Your task to perform on an android device: Go to privacy settings Image 0: 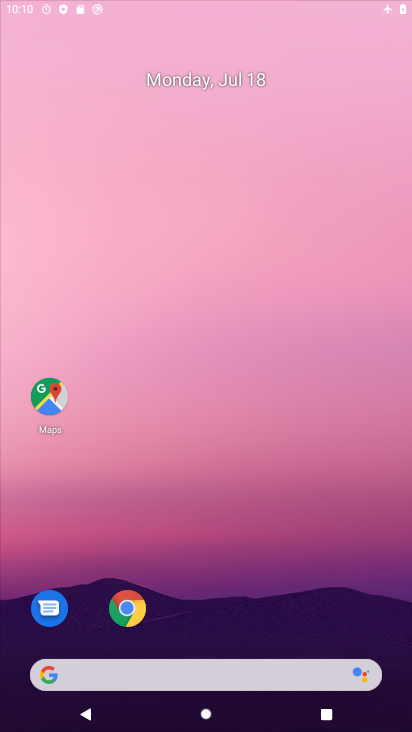
Step 0: click (239, 243)
Your task to perform on an android device: Go to privacy settings Image 1: 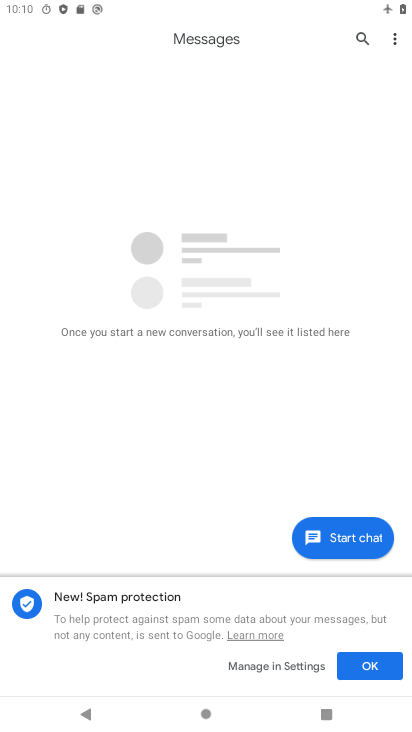
Step 1: press back button
Your task to perform on an android device: Go to privacy settings Image 2: 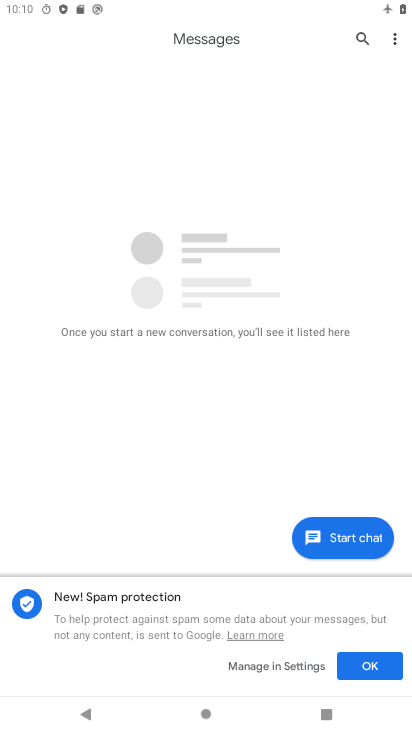
Step 2: press back button
Your task to perform on an android device: Go to privacy settings Image 3: 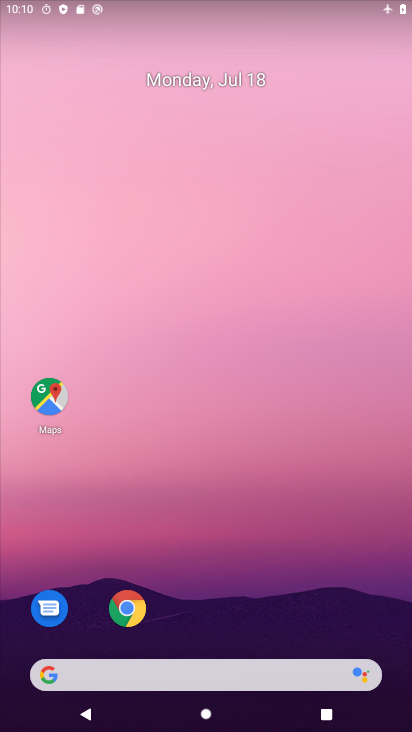
Step 3: drag from (229, 548) to (202, 165)
Your task to perform on an android device: Go to privacy settings Image 4: 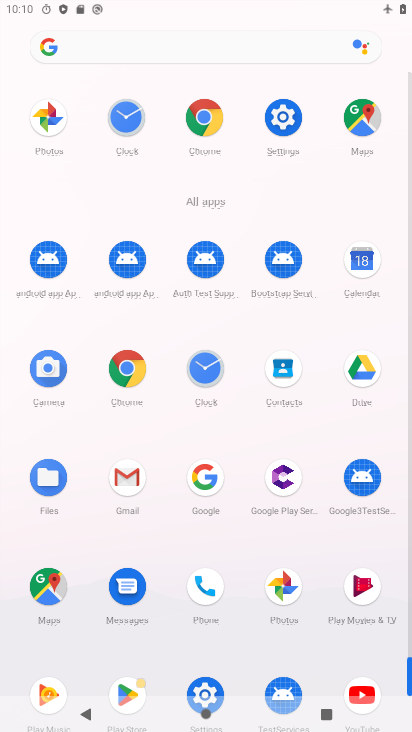
Step 4: click (289, 104)
Your task to perform on an android device: Go to privacy settings Image 5: 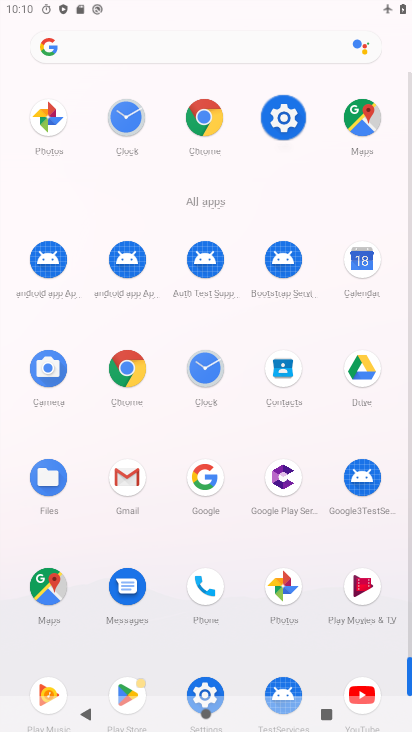
Step 5: click (286, 115)
Your task to perform on an android device: Go to privacy settings Image 6: 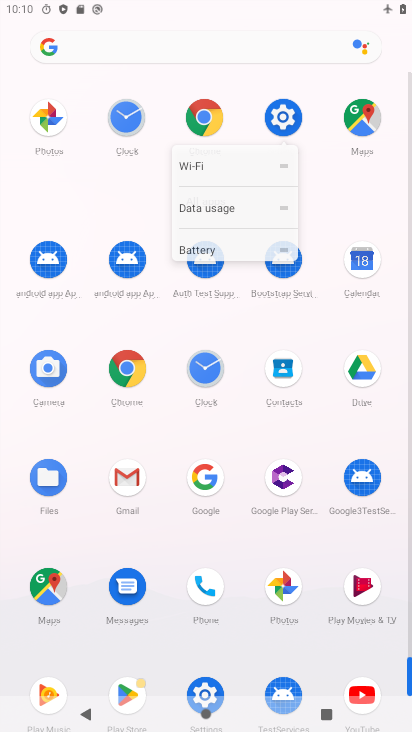
Step 6: click (291, 119)
Your task to perform on an android device: Go to privacy settings Image 7: 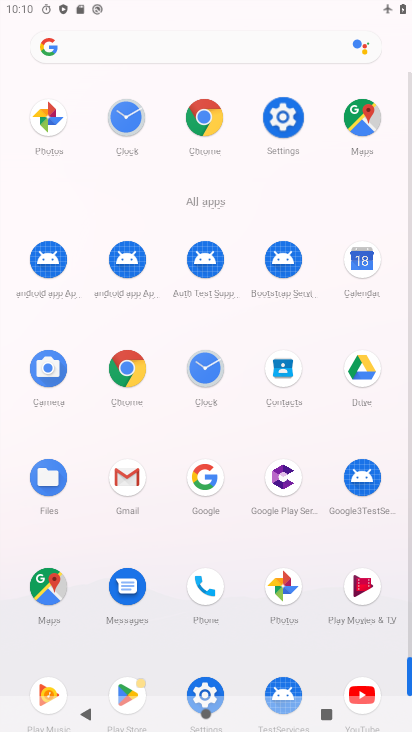
Step 7: click (291, 119)
Your task to perform on an android device: Go to privacy settings Image 8: 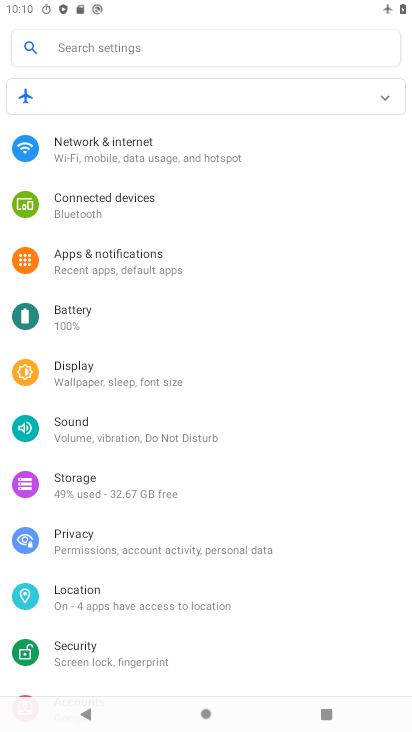
Step 8: click (72, 538)
Your task to perform on an android device: Go to privacy settings Image 9: 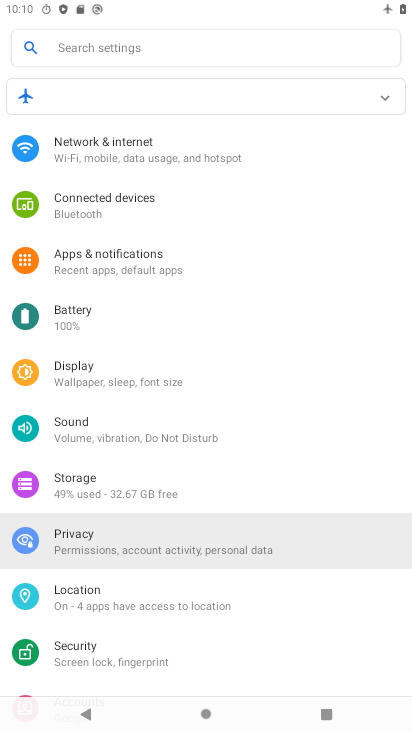
Step 9: click (77, 538)
Your task to perform on an android device: Go to privacy settings Image 10: 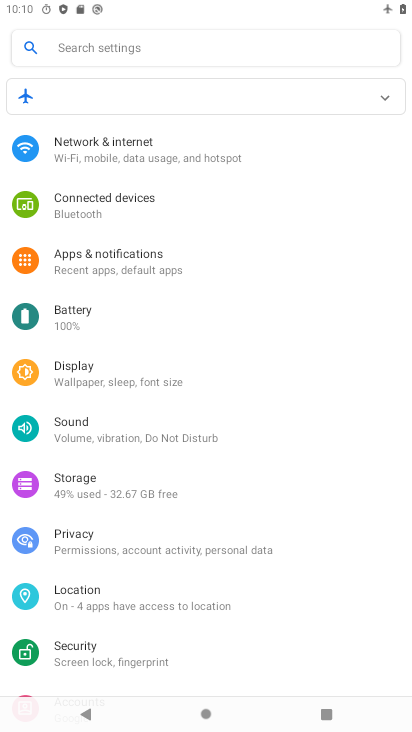
Step 10: click (78, 540)
Your task to perform on an android device: Go to privacy settings Image 11: 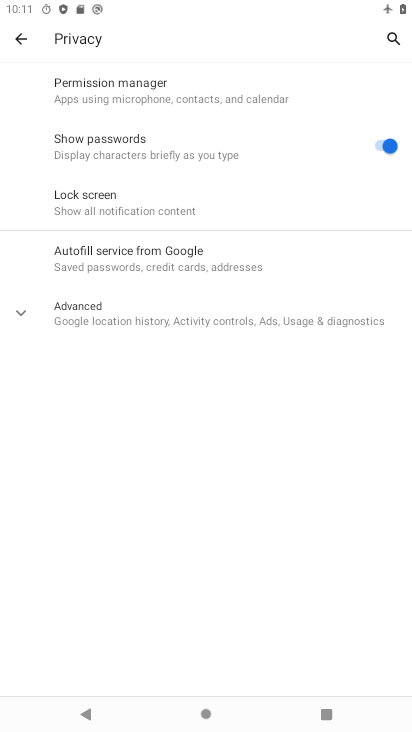
Step 11: task complete